Your task to perform on an android device: Open network settings Image 0: 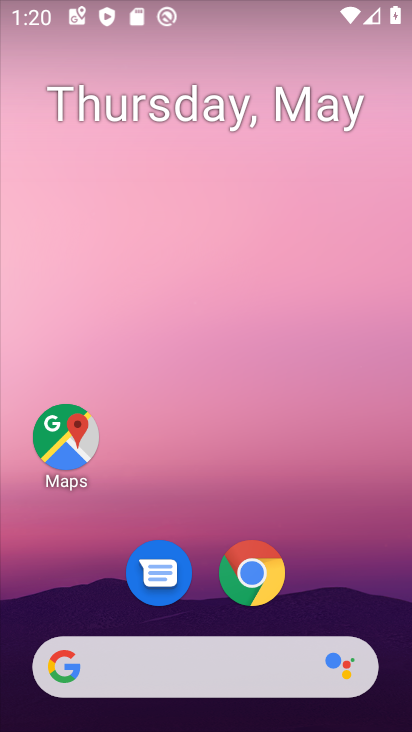
Step 0: drag from (245, 662) to (243, 107)
Your task to perform on an android device: Open network settings Image 1: 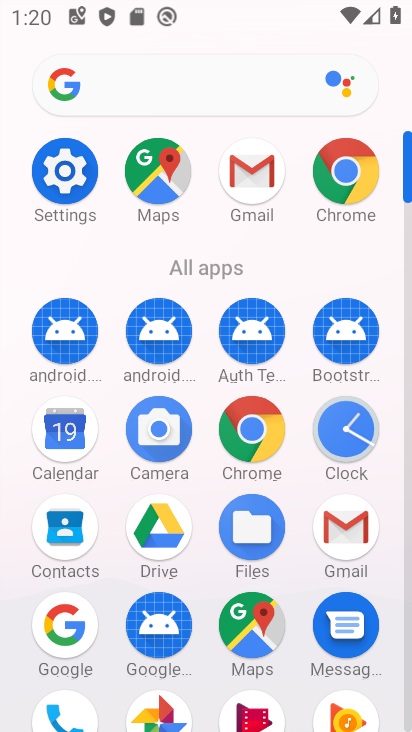
Step 1: click (72, 180)
Your task to perform on an android device: Open network settings Image 2: 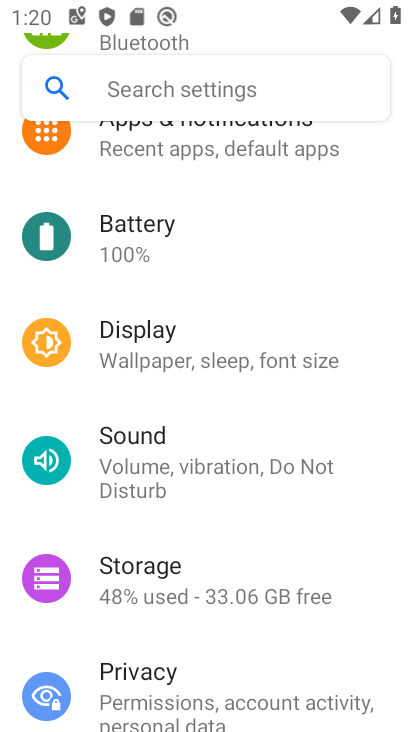
Step 2: drag from (157, 177) to (134, 406)
Your task to perform on an android device: Open network settings Image 3: 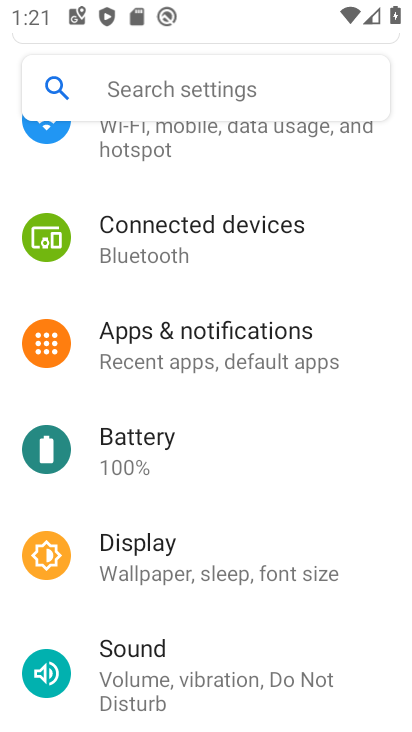
Step 3: click (166, 147)
Your task to perform on an android device: Open network settings Image 4: 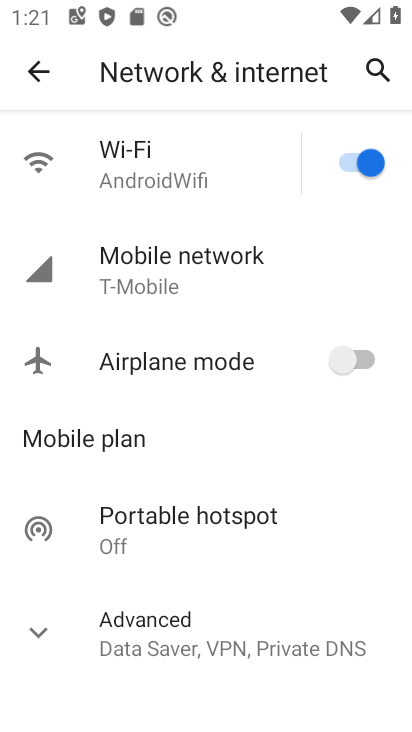
Step 4: task complete